Your task to perform on an android device: Go to Yahoo.com Image 0: 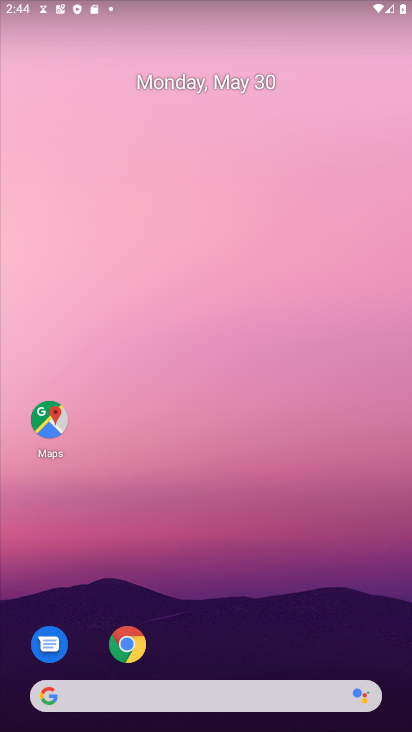
Step 0: click (211, 689)
Your task to perform on an android device: Go to Yahoo.com Image 1: 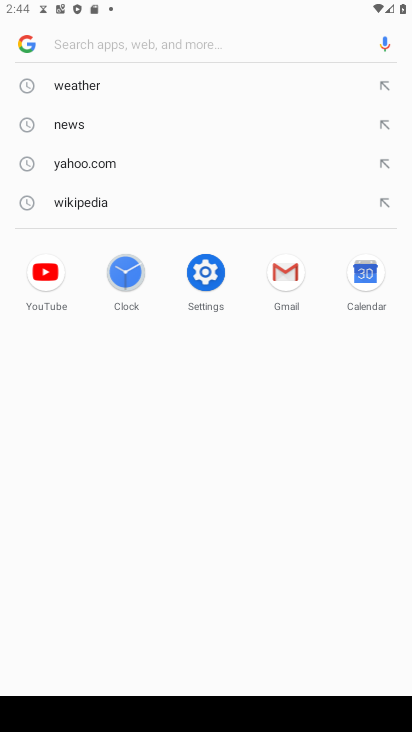
Step 1: click (81, 165)
Your task to perform on an android device: Go to Yahoo.com Image 2: 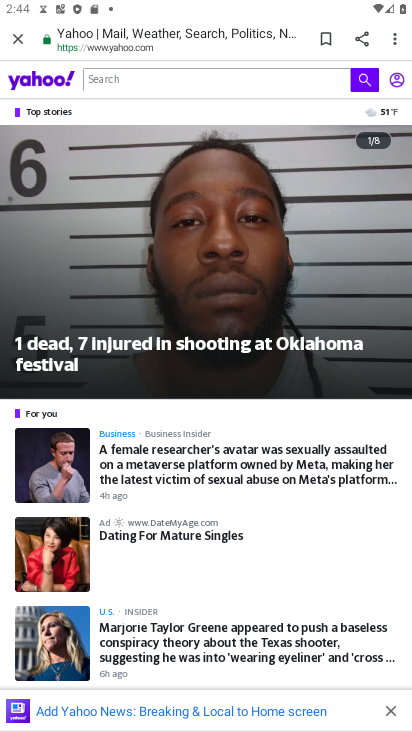
Step 2: task complete